Your task to perform on an android device: Show me recent news Image 0: 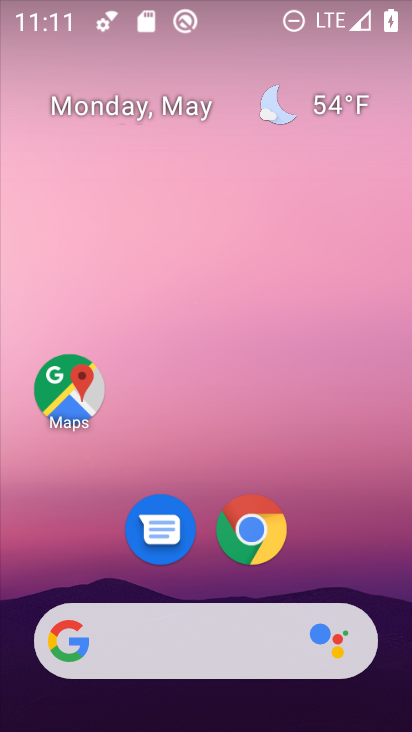
Step 0: drag from (26, 255) to (368, 210)
Your task to perform on an android device: Show me recent news Image 1: 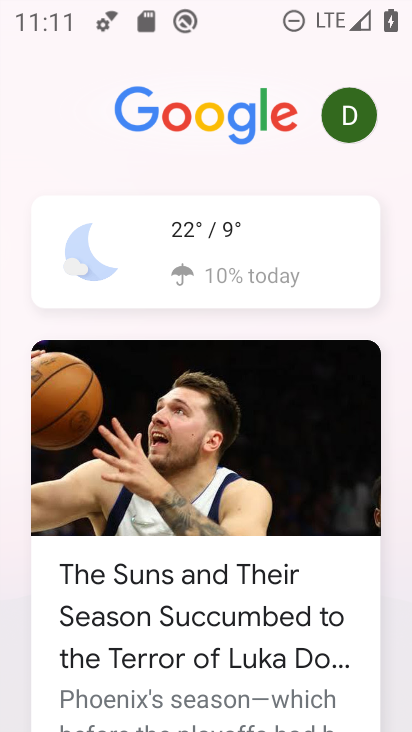
Step 1: task complete